Your task to perform on an android device: toggle notification dots Image 0: 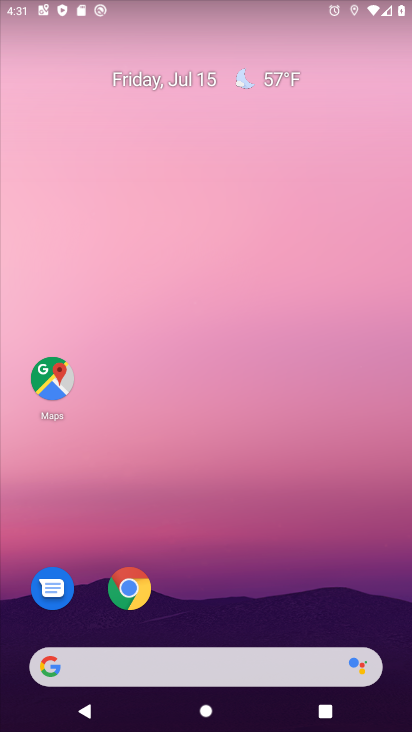
Step 0: drag from (221, 666) to (243, 112)
Your task to perform on an android device: toggle notification dots Image 1: 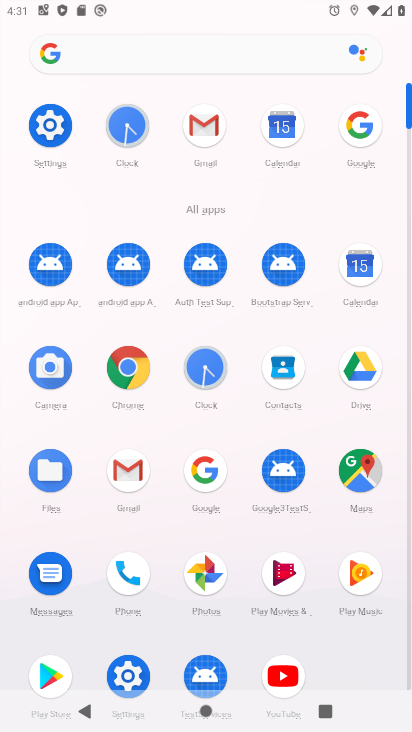
Step 1: click (53, 125)
Your task to perform on an android device: toggle notification dots Image 2: 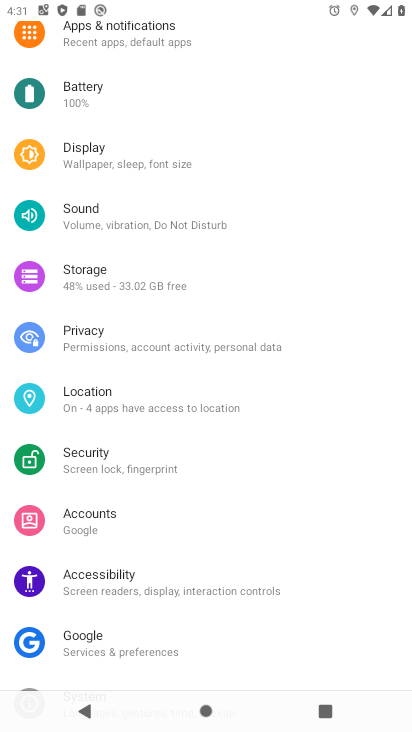
Step 2: drag from (91, 124) to (72, 292)
Your task to perform on an android device: toggle notification dots Image 3: 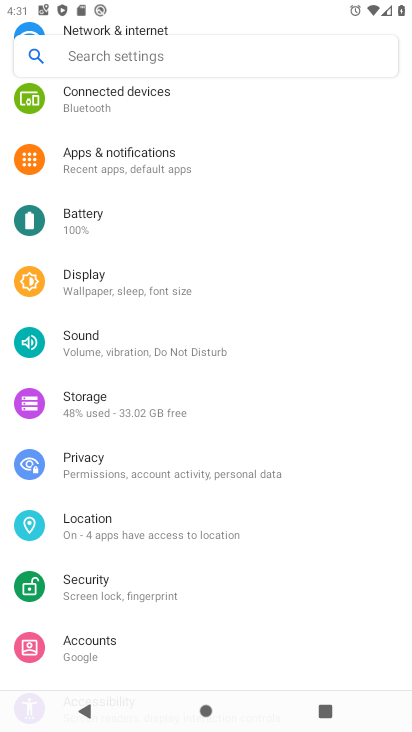
Step 3: click (141, 163)
Your task to perform on an android device: toggle notification dots Image 4: 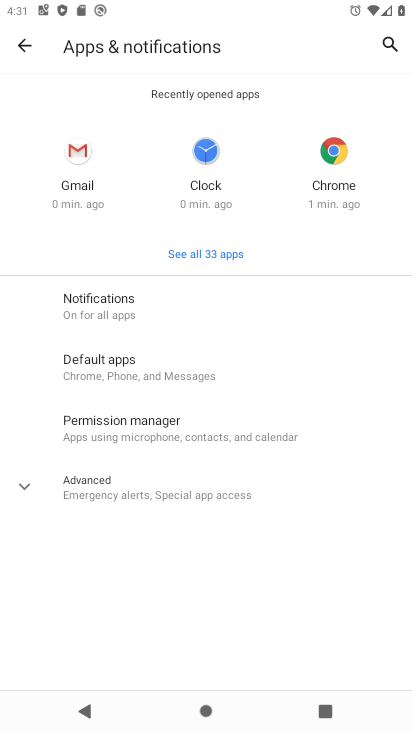
Step 4: click (111, 310)
Your task to perform on an android device: toggle notification dots Image 5: 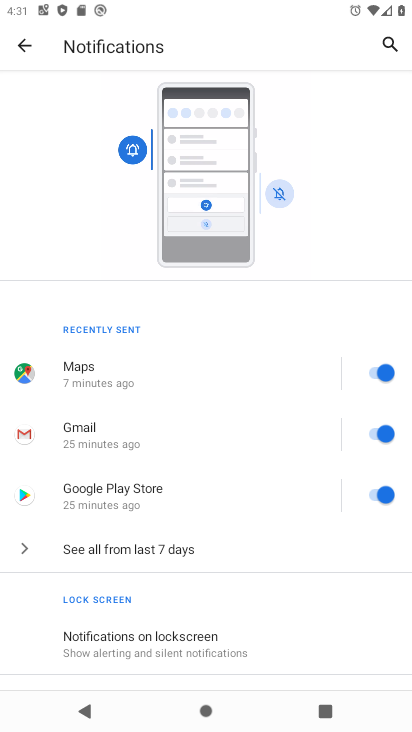
Step 5: drag from (139, 577) to (232, 442)
Your task to perform on an android device: toggle notification dots Image 6: 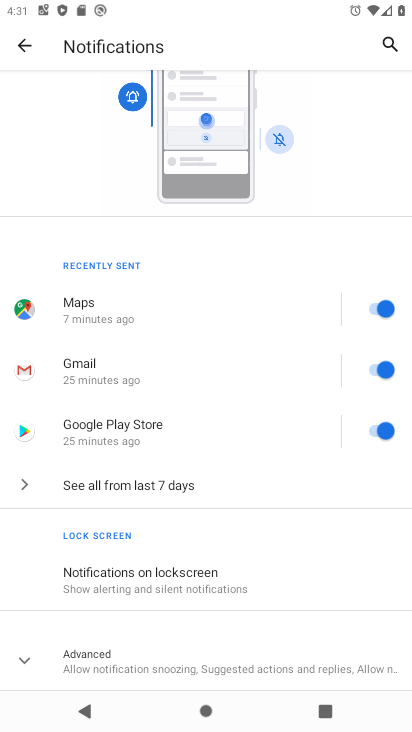
Step 6: click (125, 663)
Your task to perform on an android device: toggle notification dots Image 7: 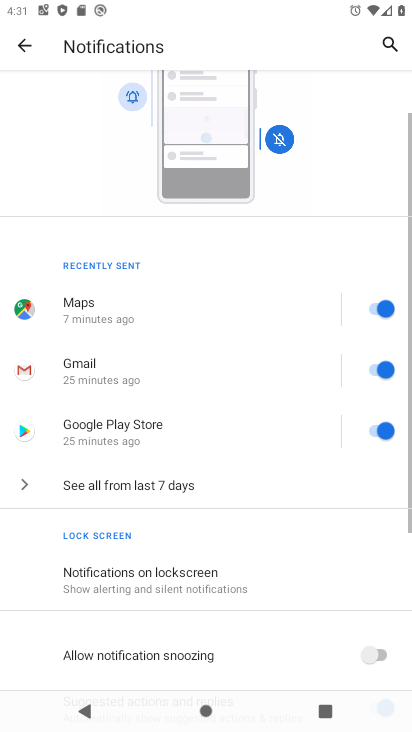
Step 7: drag from (174, 610) to (275, 340)
Your task to perform on an android device: toggle notification dots Image 8: 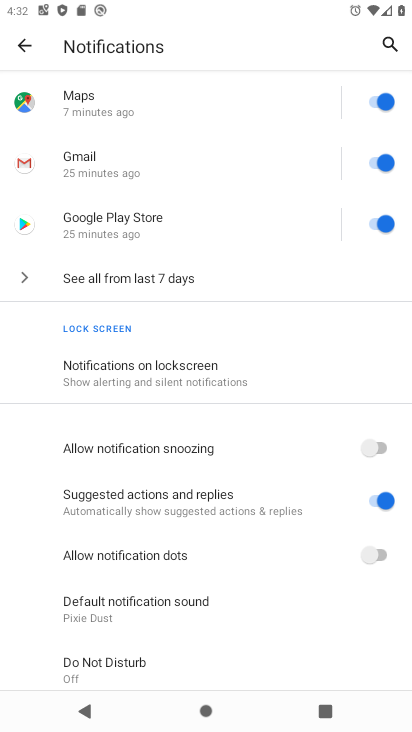
Step 8: click (379, 552)
Your task to perform on an android device: toggle notification dots Image 9: 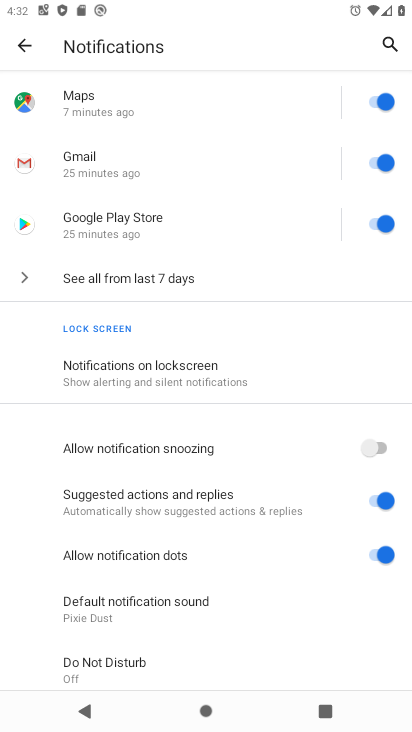
Step 9: task complete